Your task to perform on an android device: clear history in the chrome app Image 0: 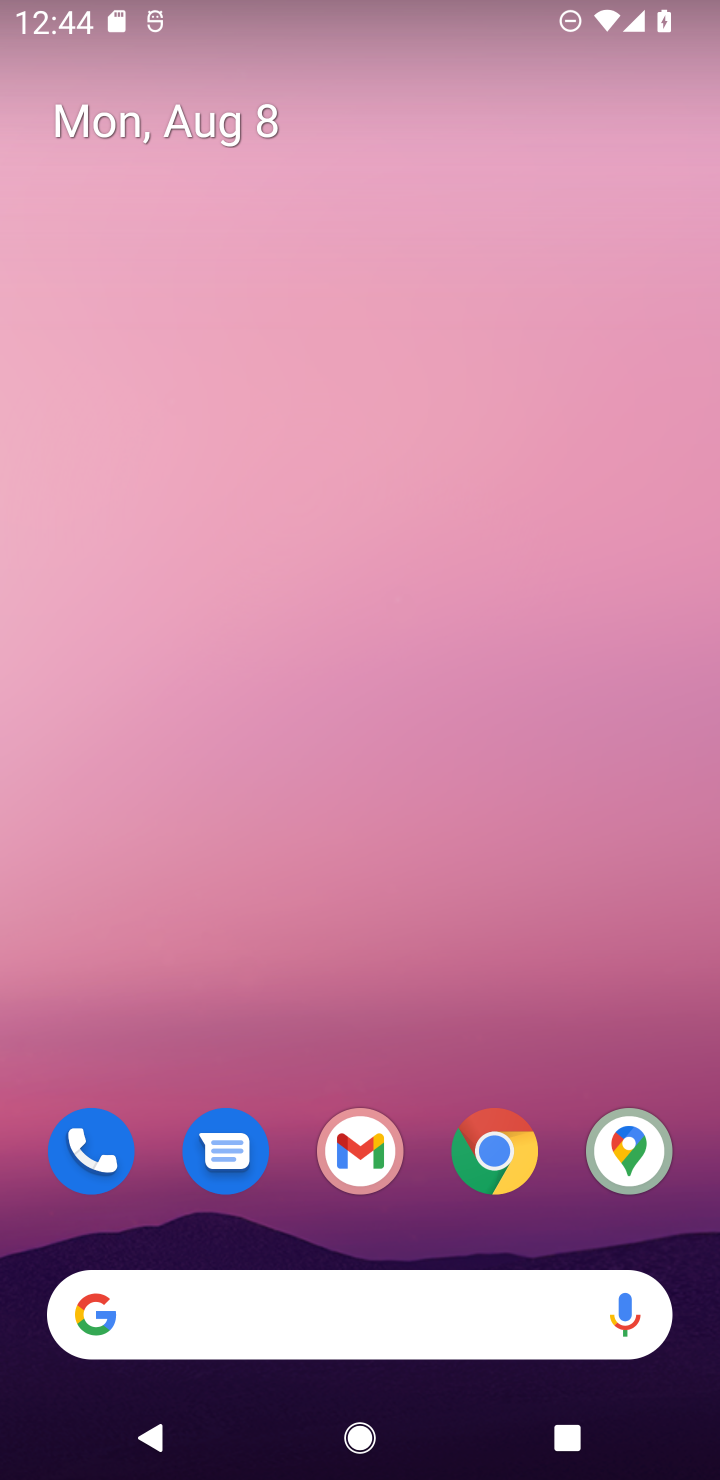
Step 0: drag from (317, 1279) to (344, 230)
Your task to perform on an android device: clear history in the chrome app Image 1: 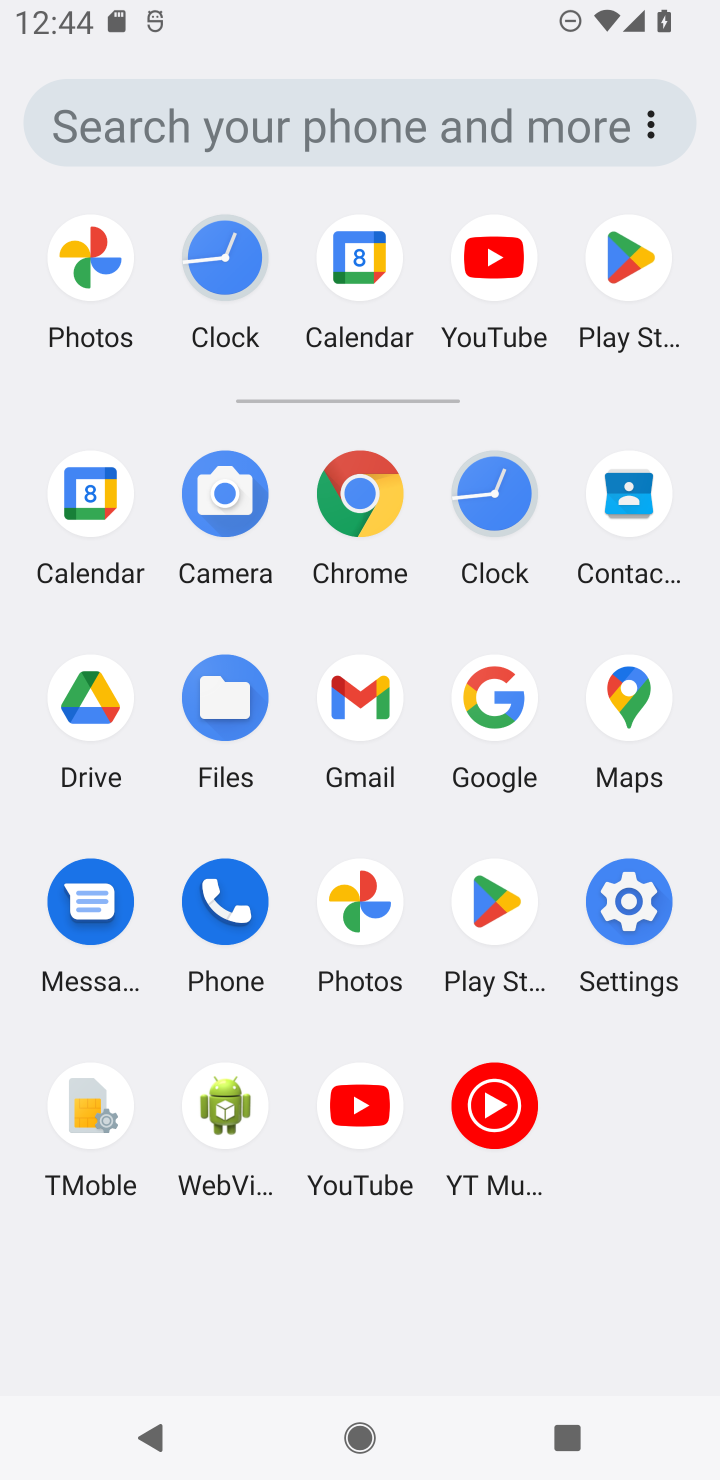
Step 1: click (363, 499)
Your task to perform on an android device: clear history in the chrome app Image 2: 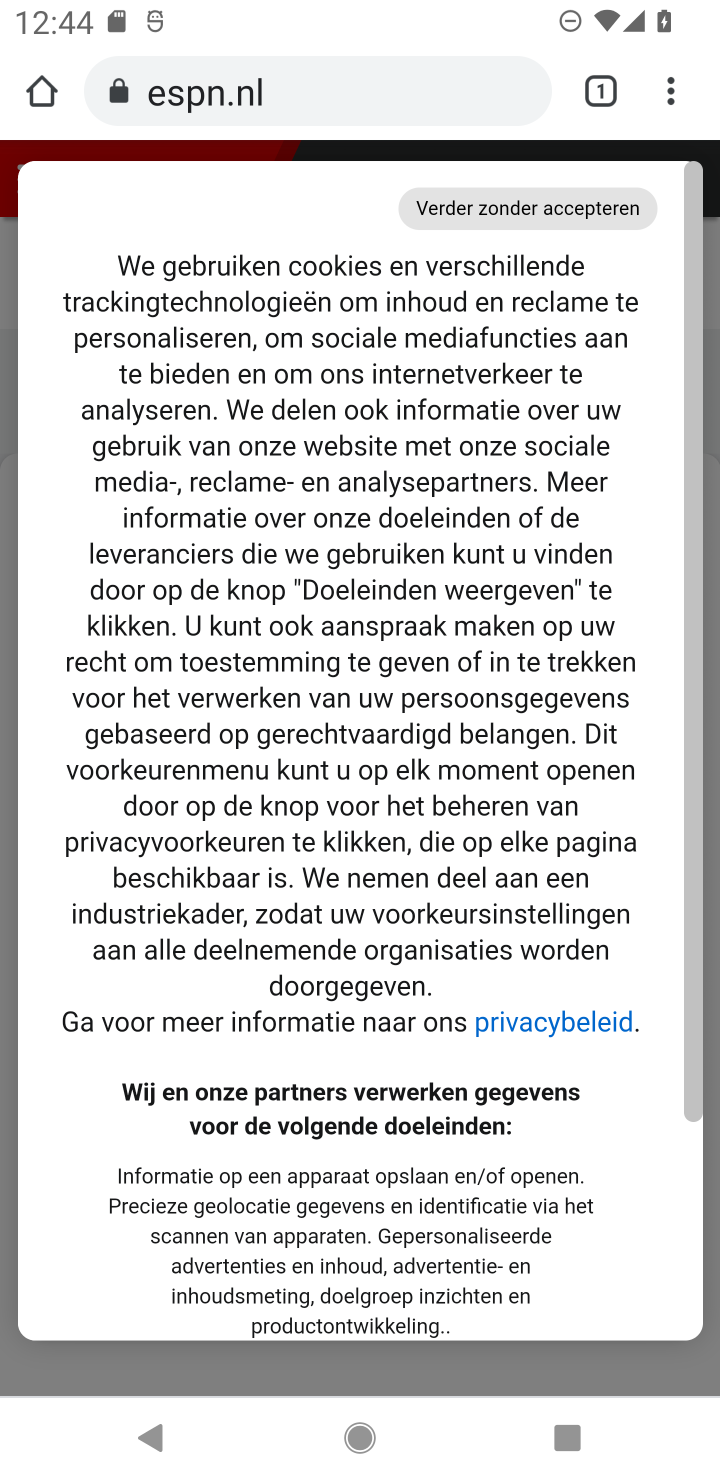
Step 2: click (674, 91)
Your task to perform on an android device: clear history in the chrome app Image 3: 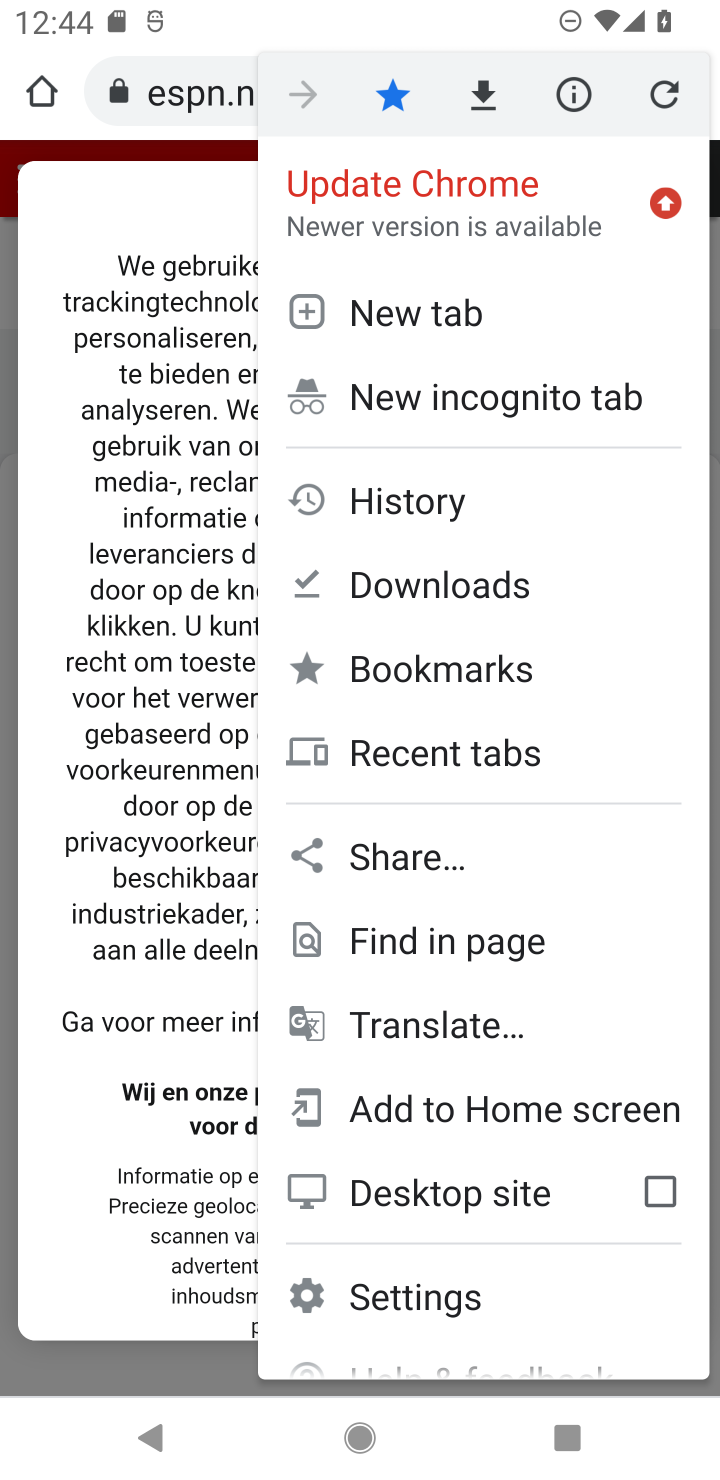
Step 3: click (374, 494)
Your task to perform on an android device: clear history in the chrome app Image 4: 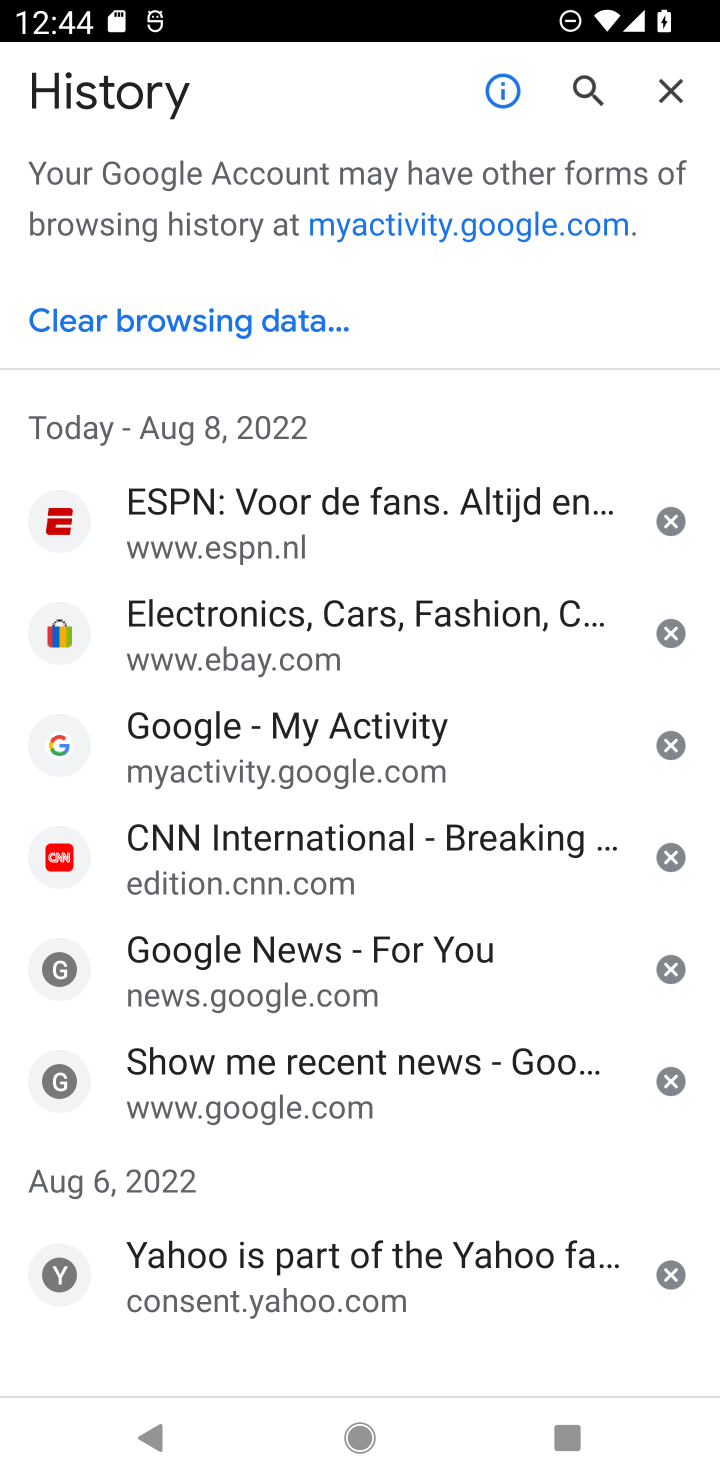
Step 4: click (210, 316)
Your task to perform on an android device: clear history in the chrome app Image 5: 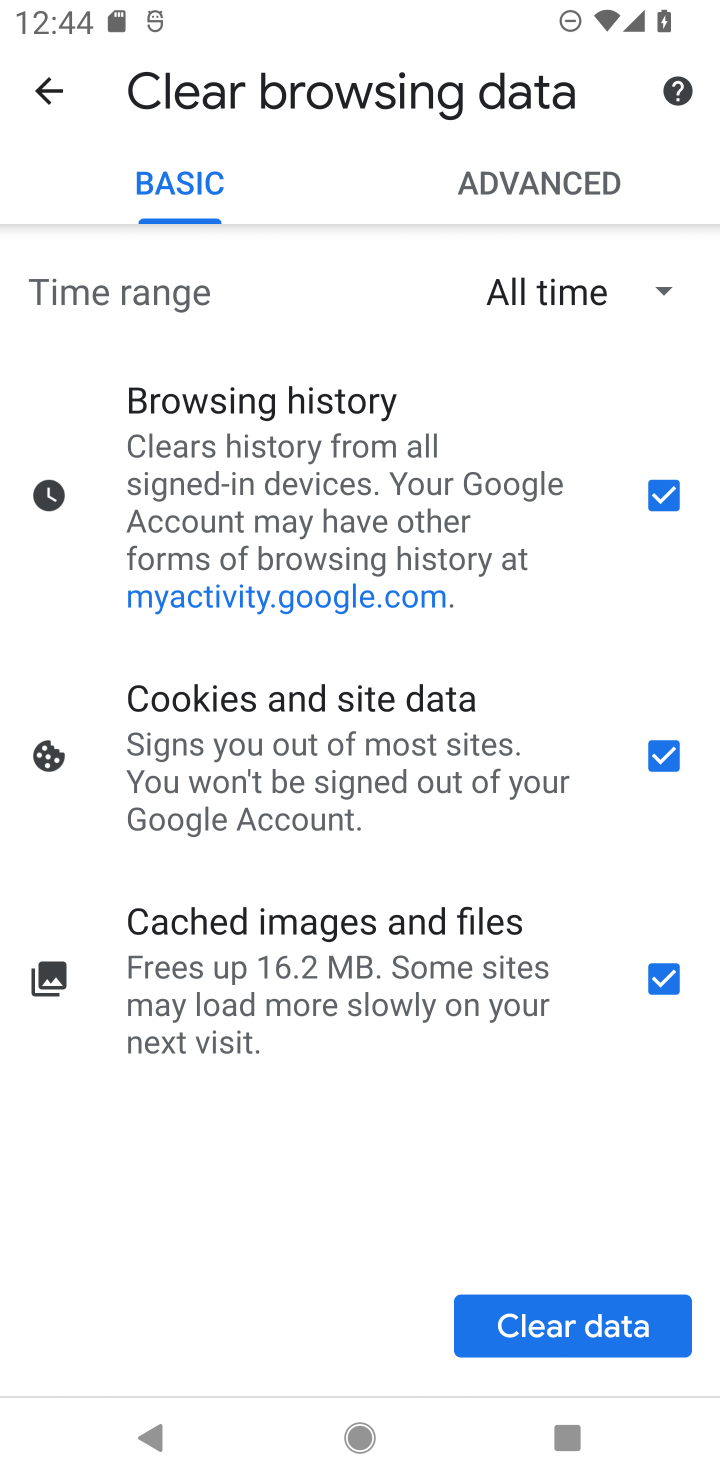
Step 5: click (577, 1330)
Your task to perform on an android device: clear history in the chrome app Image 6: 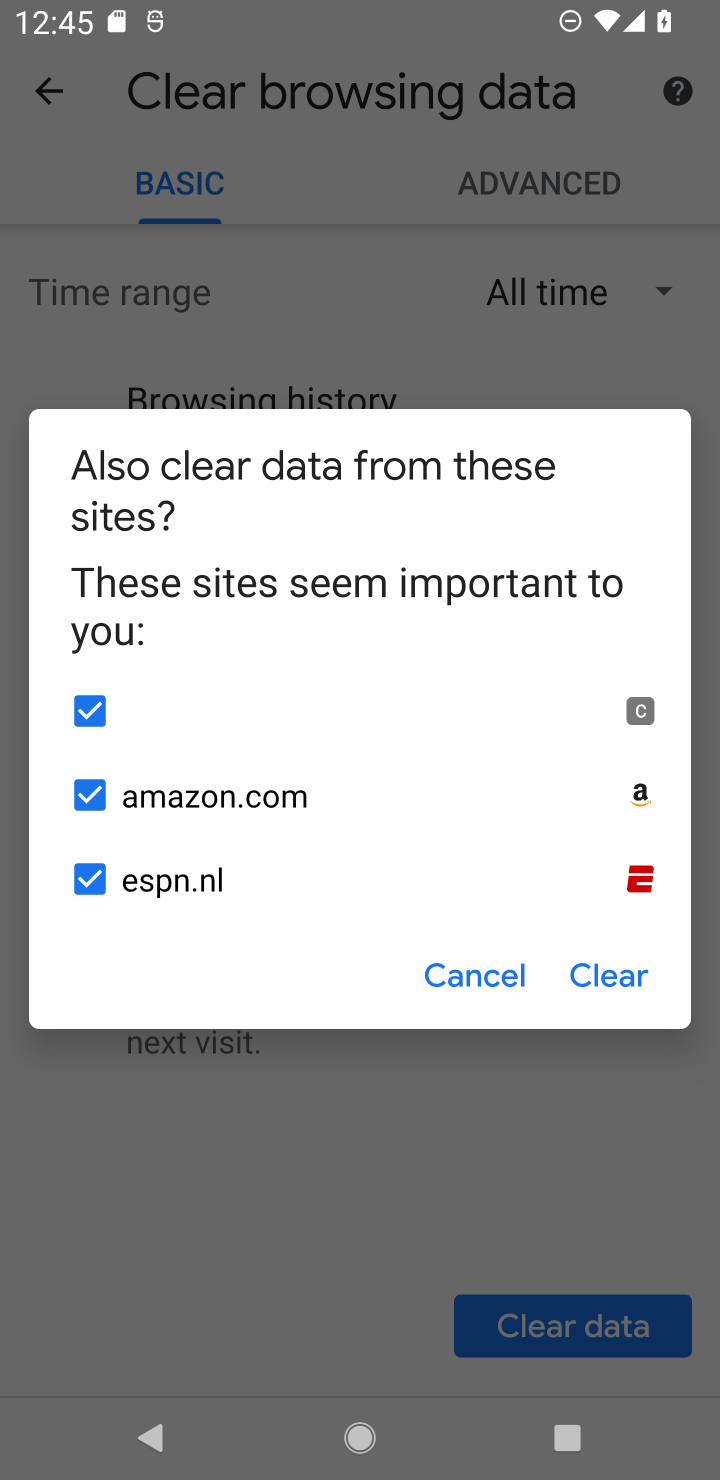
Step 6: click (601, 988)
Your task to perform on an android device: clear history in the chrome app Image 7: 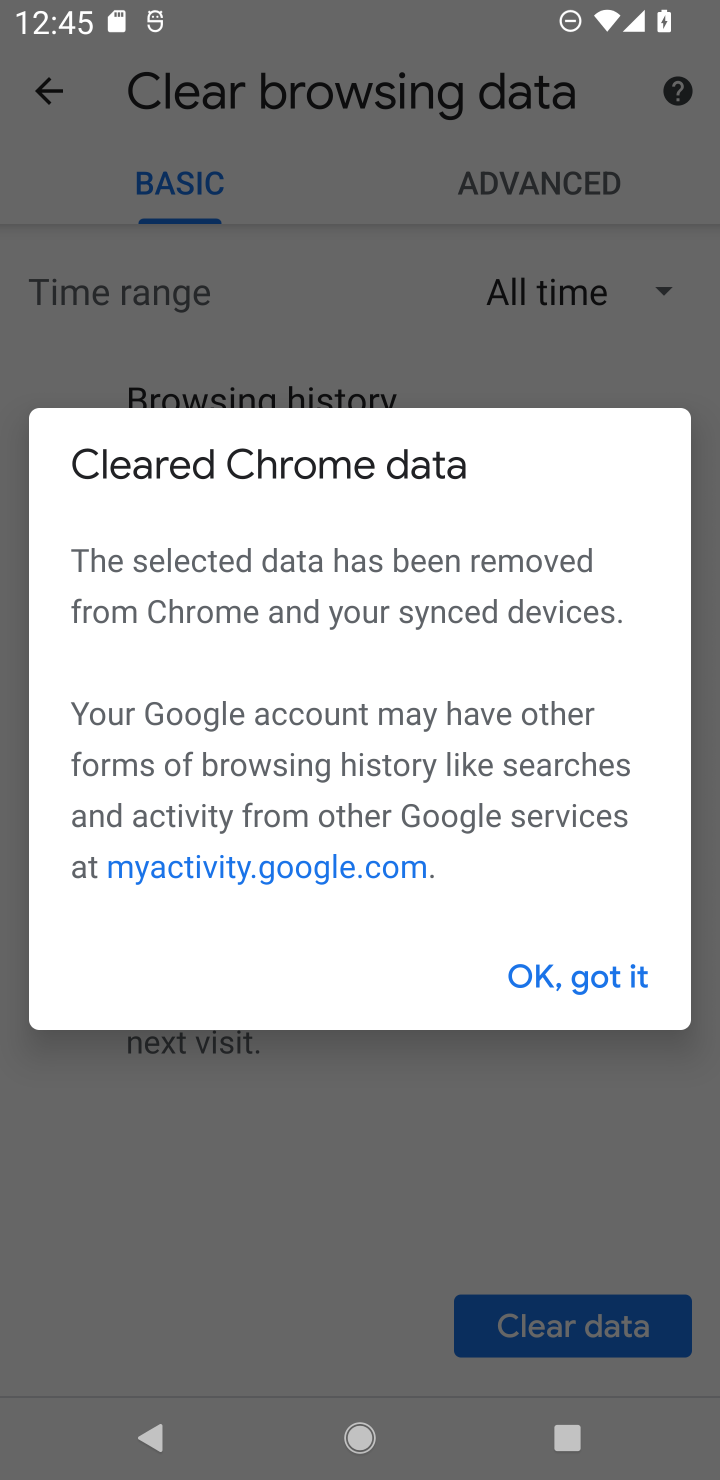
Step 7: click (613, 986)
Your task to perform on an android device: clear history in the chrome app Image 8: 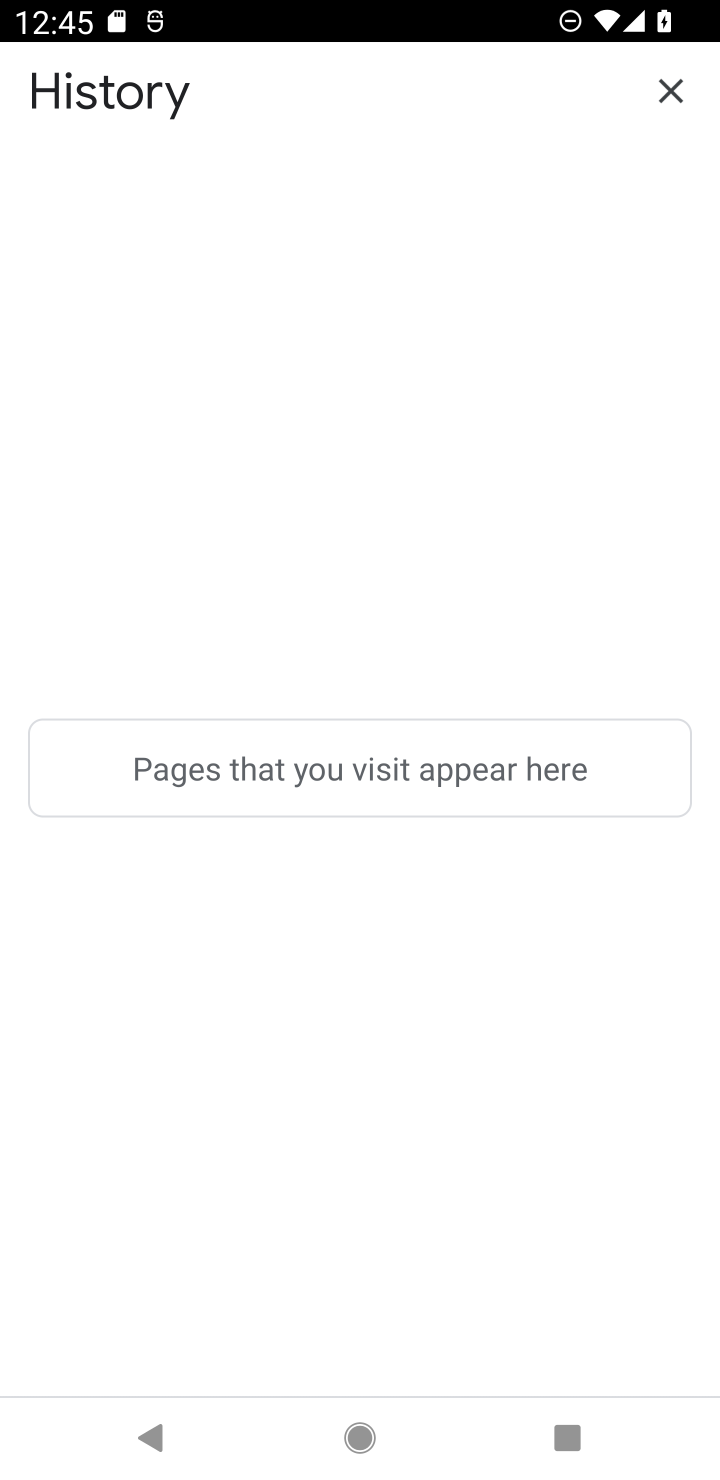
Step 8: task complete